Your task to perform on an android device: see sites visited before in the chrome app Image 0: 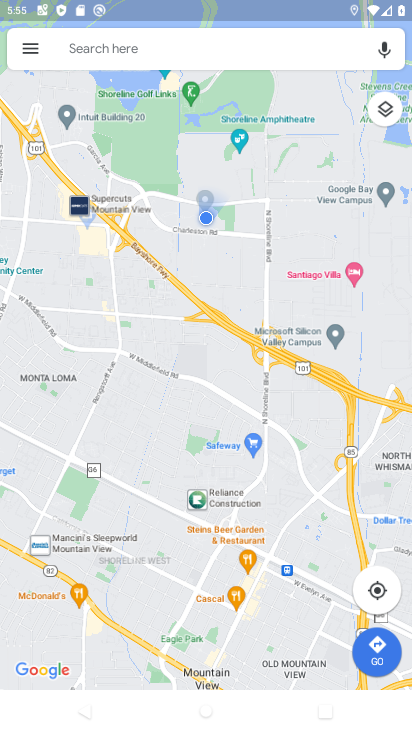
Step 0: press back button
Your task to perform on an android device: see sites visited before in the chrome app Image 1: 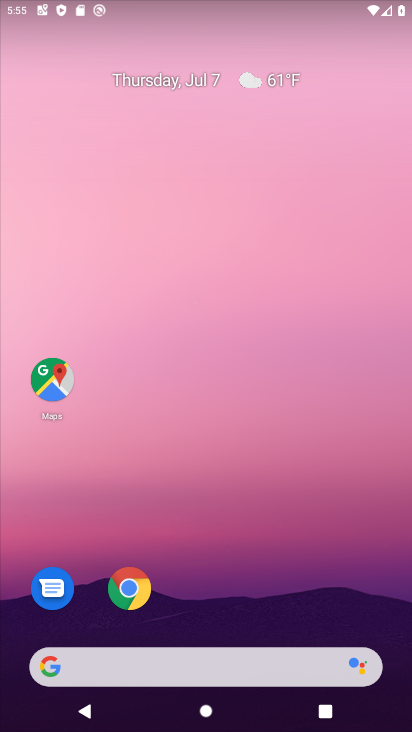
Step 1: click (133, 598)
Your task to perform on an android device: see sites visited before in the chrome app Image 2: 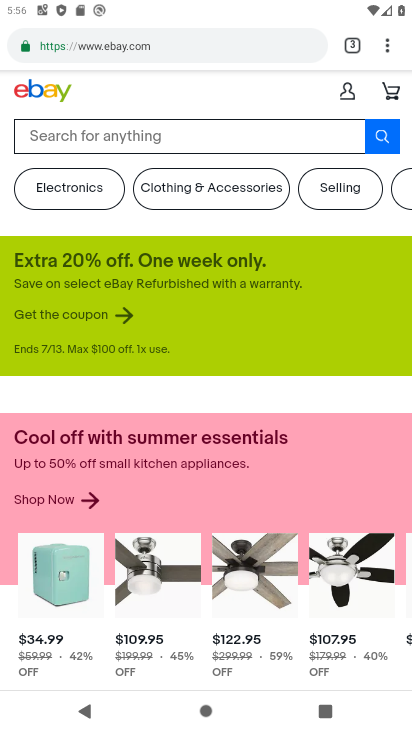
Step 2: task complete